Your task to perform on an android device: Open Maps and search for coffee Image 0: 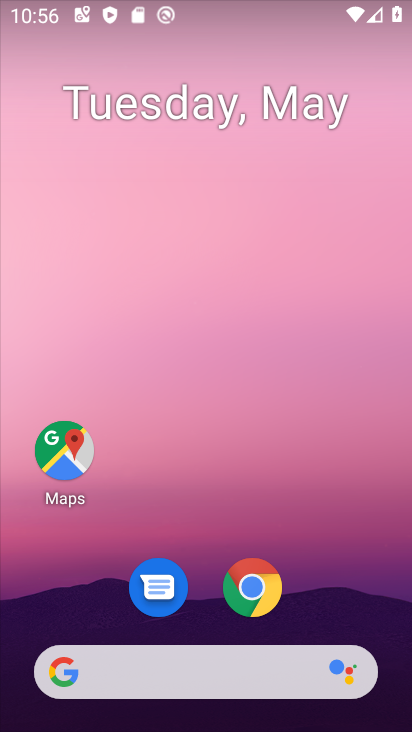
Step 0: drag from (354, 609) to (280, 13)
Your task to perform on an android device: Open Maps and search for coffee Image 1: 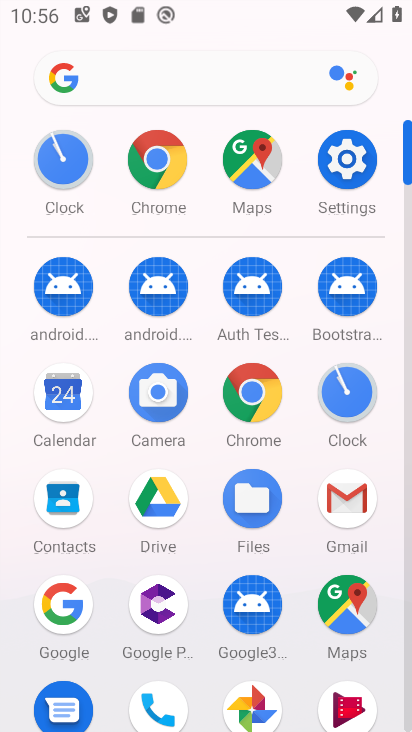
Step 1: drag from (12, 587) to (12, 203)
Your task to perform on an android device: Open Maps and search for coffee Image 2: 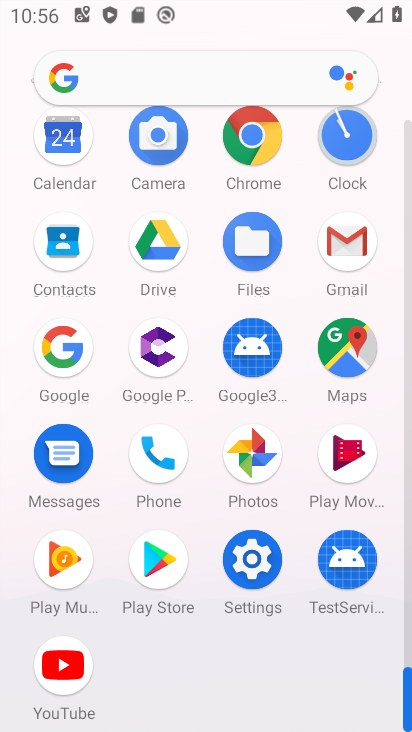
Step 2: click (346, 346)
Your task to perform on an android device: Open Maps and search for coffee Image 3: 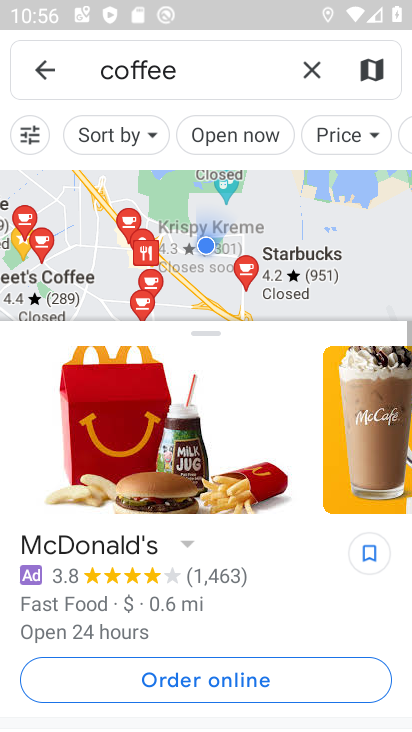
Step 3: click (50, 78)
Your task to perform on an android device: Open Maps and search for coffee Image 4: 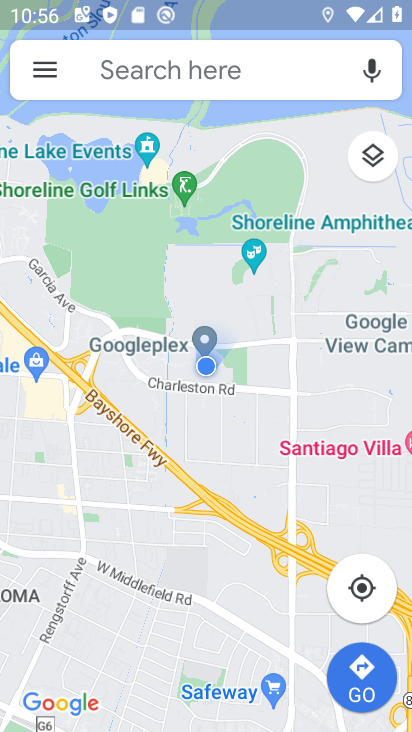
Step 4: click (262, 76)
Your task to perform on an android device: Open Maps and search for coffee Image 5: 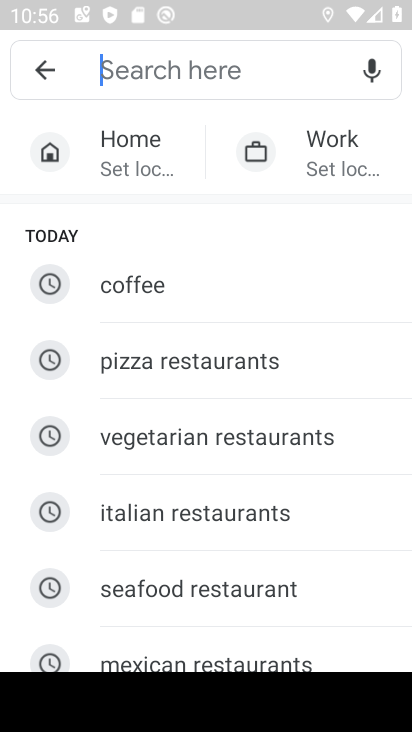
Step 5: click (190, 287)
Your task to perform on an android device: Open Maps and search for coffee Image 6: 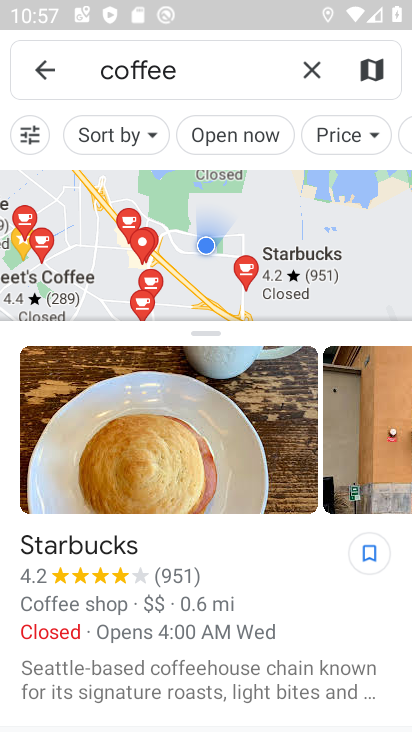
Step 6: task complete